Your task to perform on an android device: turn on improve location accuracy Image 0: 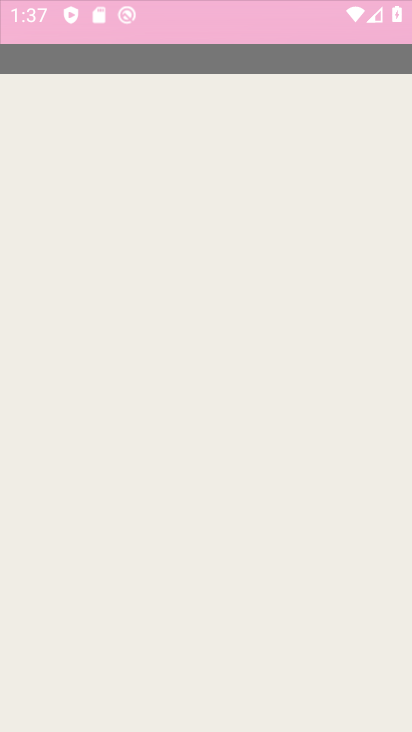
Step 0: drag from (195, 633) to (293, 68)
Your task to perform on an android device: turn on improve location accuracy Image 1: 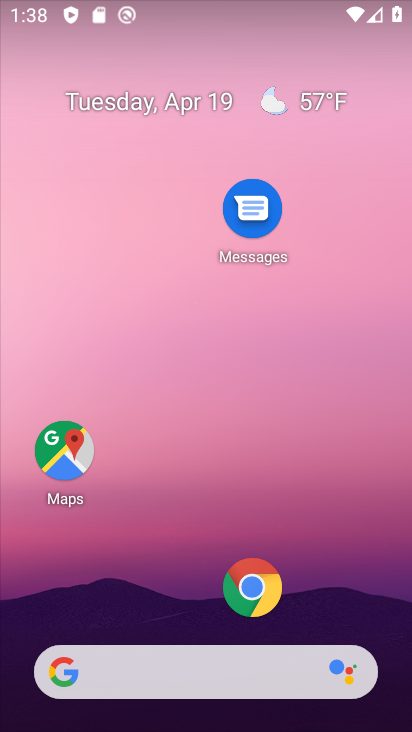
Step 1: drag from (105, 602) to (179, 58)
Your task to perform on an android device: turn on improve location accuracy Image 2: 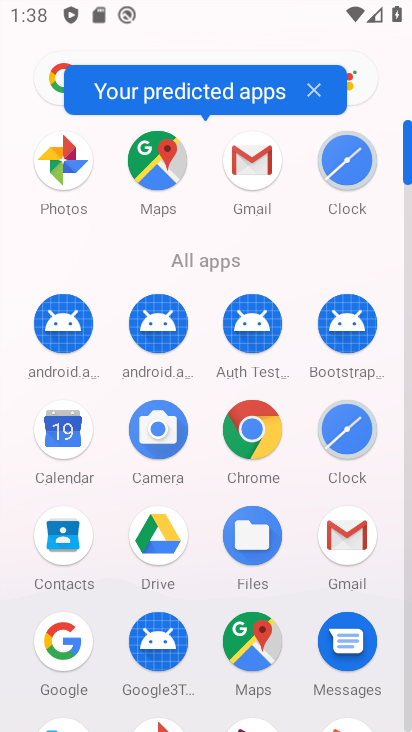
Step 2: drag from (232, 630) to (292, 290)
Your task to perform on an android device: turn on improve location accuracy Image 3: 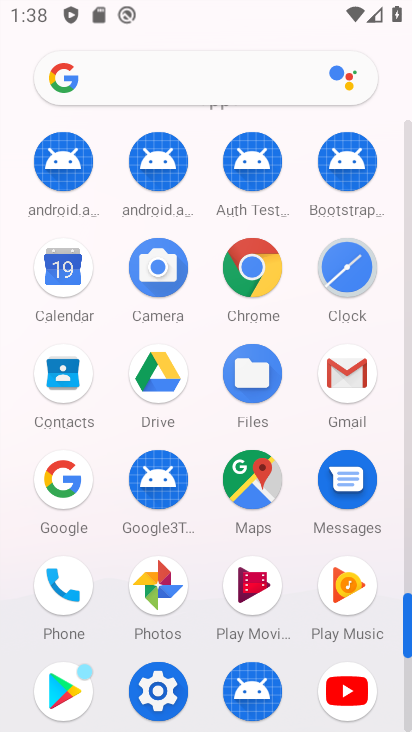
Step 3: click (172, 688)
Your task to perform on an android device: turn on improve location accuracy Image 4: 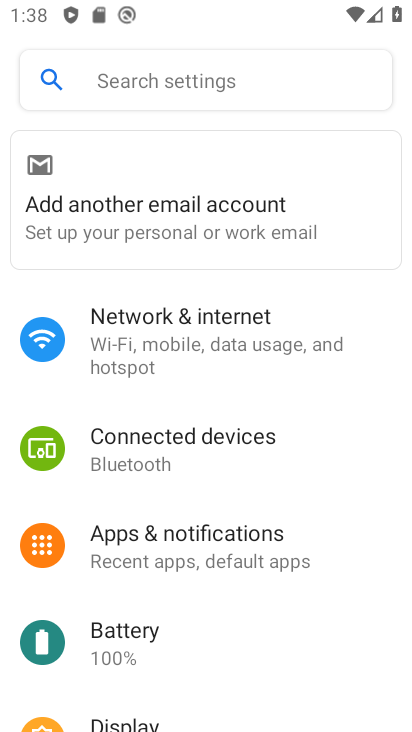
Step 4: drag from (186, 657) to (270, 297)
Your task to perform on an android device: turn on improve location accuracy Image 5: 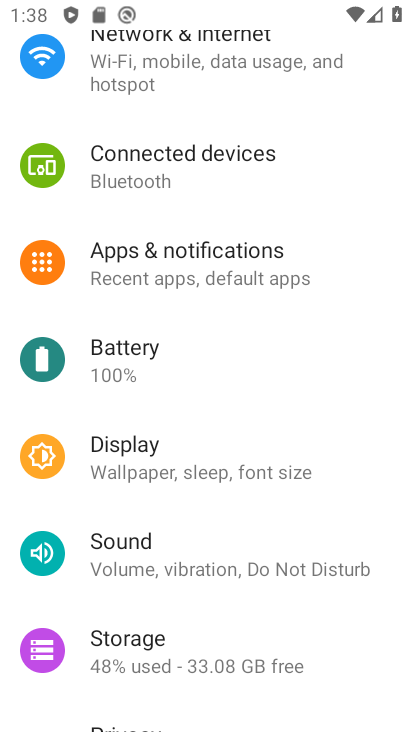
Step 5: drag from (238, 603) to (318, 239)
Your task to perform on an android device: turn on improve location accuracy Image 6: 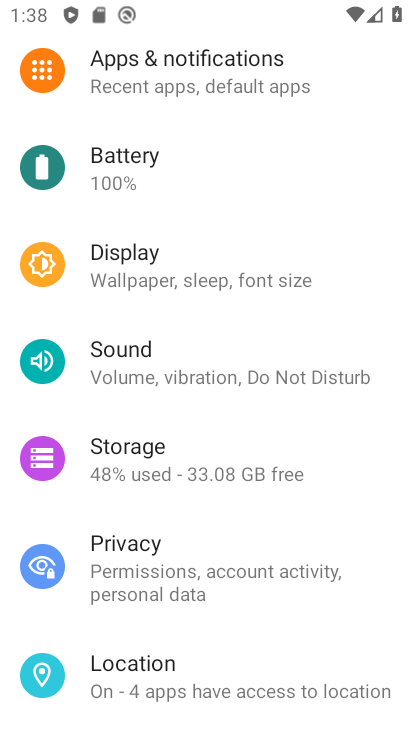
Step 6: click (165, 667)
Your task to perform on an android device: turn on improve location accuracy Image 7: 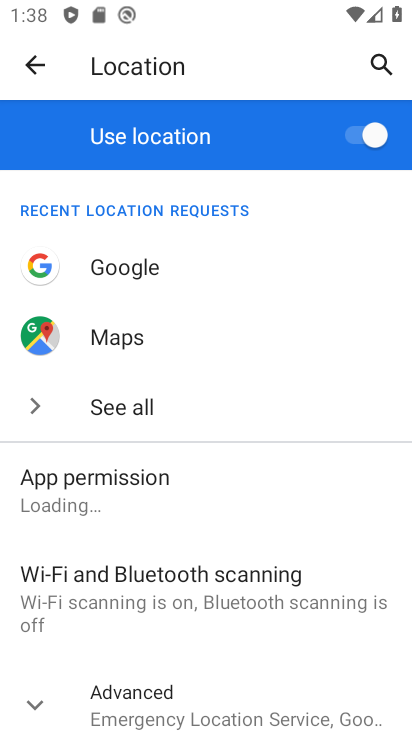
Step 7: click (176, 687)
Your task to perform on an android device: turn on improve location accuracy Image 8: 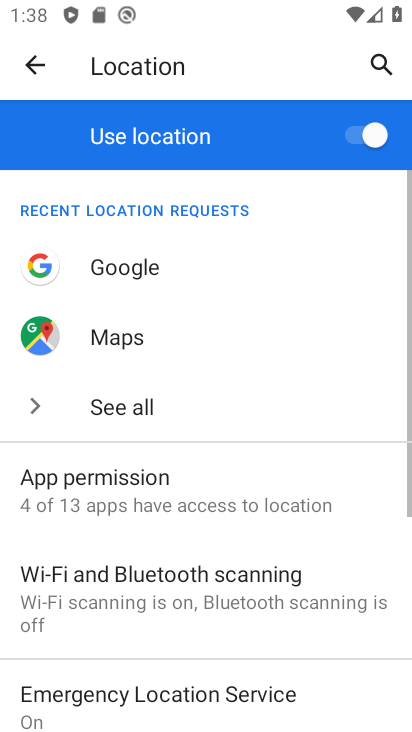
Step 8: drag from (190, 559) to (304, 205)
Your task to perform on an android device: turn on improve location accuracy Image 9: 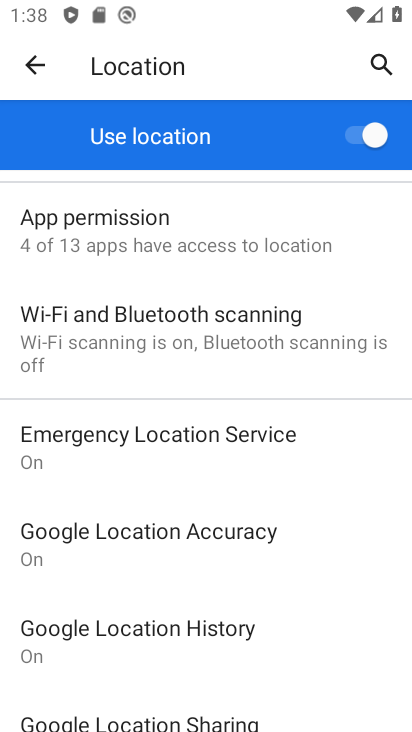
Step 9: drag from (198, 660) to (261, 392)
Your task to perform on an android device: turn on improve location accuracy Image 10: 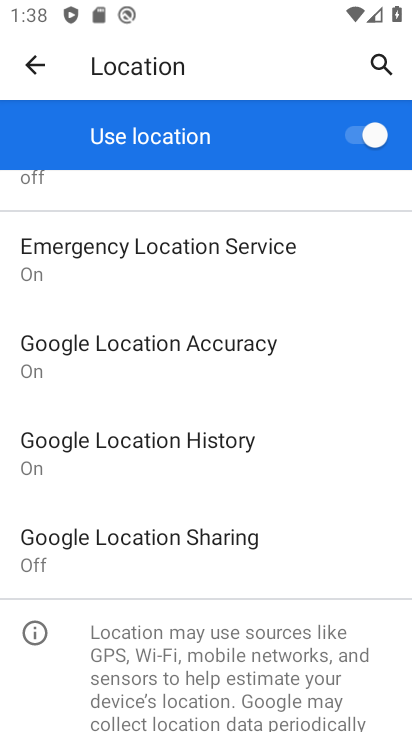
Step 10: click (250, 364)
Your task to perform on an android device: turn on improve location accuracy Image 11: 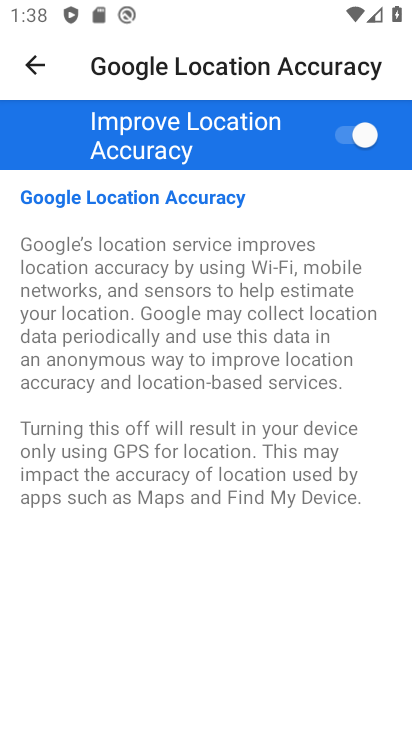
Step 11: task complete